Your task to perform on an android device: turn off notifications in google photos Image 0: 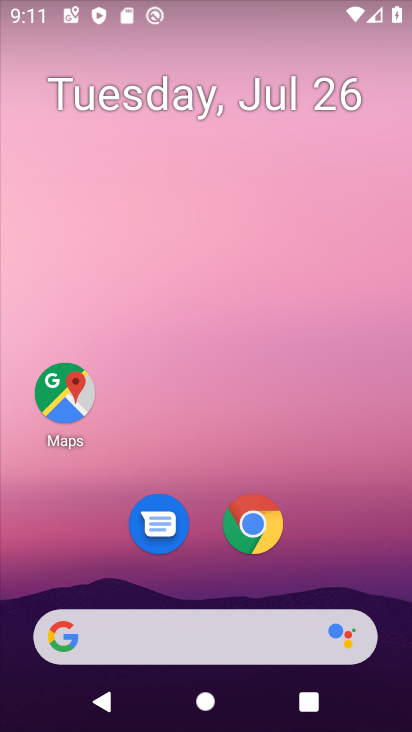
Step 0: drag from (189, 644) to (351, 136)
Your task to perform on an android device: turn off notifications in google photos Image 1: 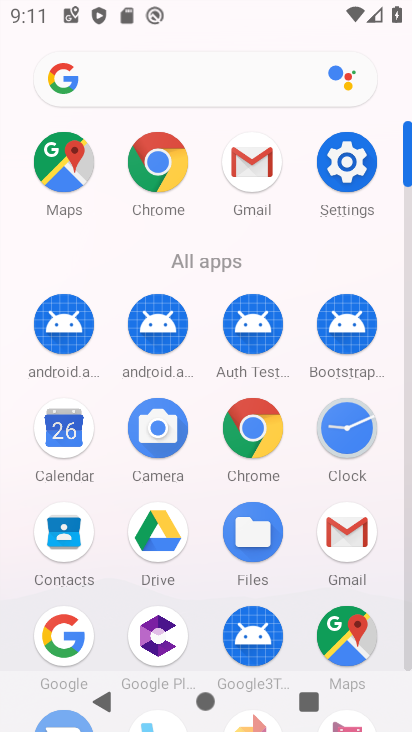
Step 1: drag from (200, 599) to (327, 197)
Your task to perform on an android device: turn off notifications in google photos Image 2: 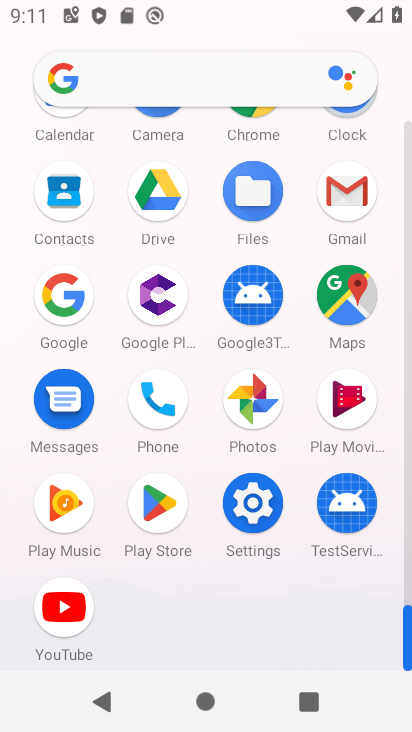
Step 2: click (268, 417)
Your task to perform on an android device: turn off notifications in google photos Image 3: 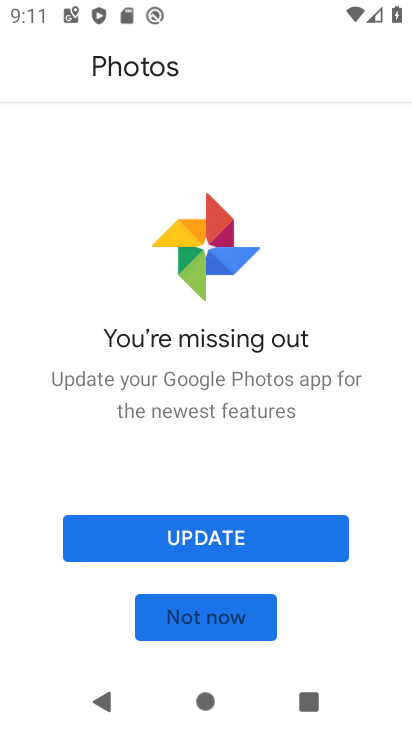
Step 3: click (177, 614)
Your task to perform on an android device: turn off notifications in google photos Image 4: 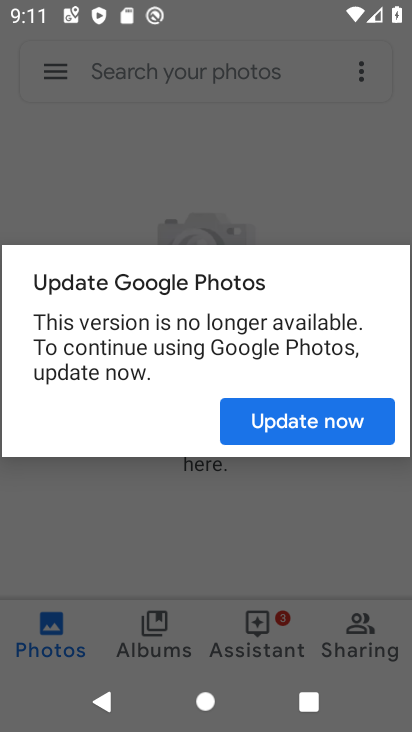
Step 4: click (324, 405)
Your task to perform on an android device: turn off notifications in google photos Image 5: 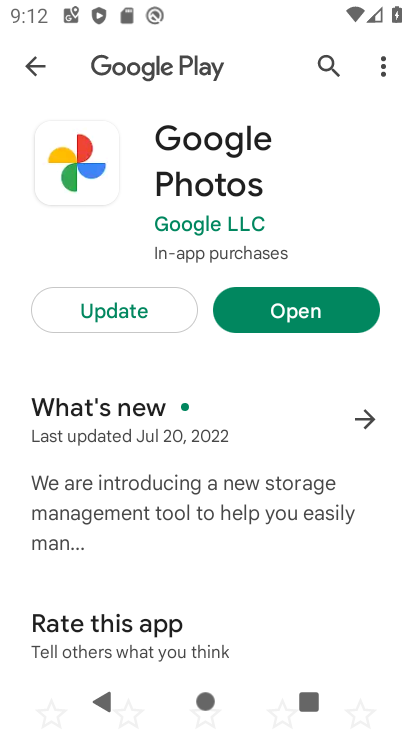
Step 5: click (90, 318)
Your task to perform on an android device: turn off notifications in google photos Image 6: 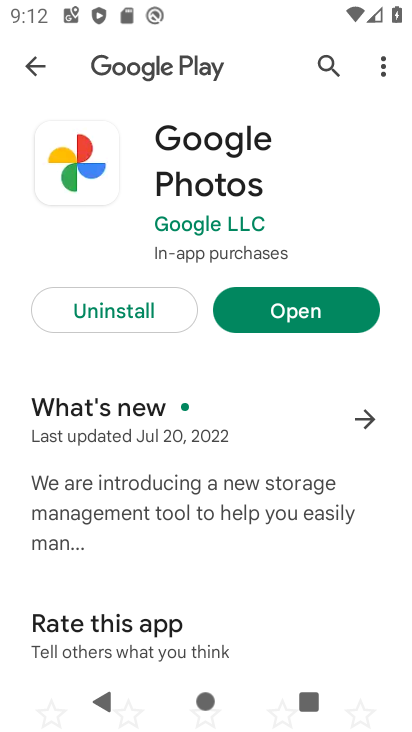
Step 6: click (335, 316)
Your task to perform on an android device: turn off notifications in google photos Image 7: 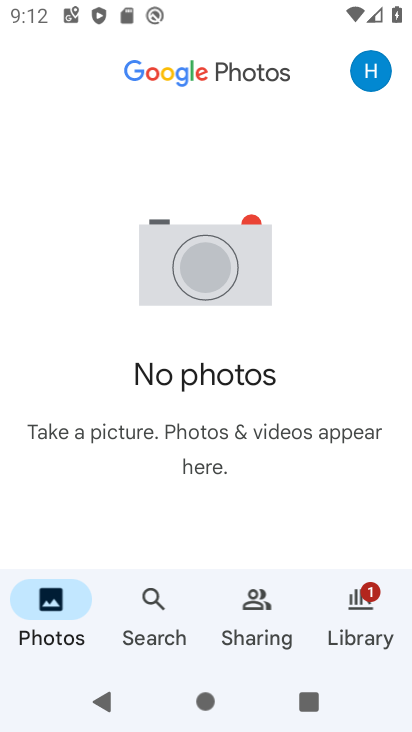
Step 7: click (365, 76)
Your task to perform on an android device: turn off notifications in google photos Image 8: 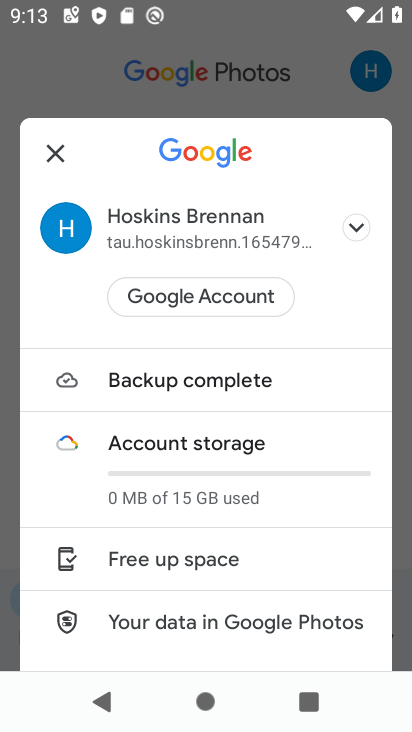
Step 8: drag from (212, 581) to (360, 129)
Your task to perform on an android device: turn off notifications in google photos Image 9: 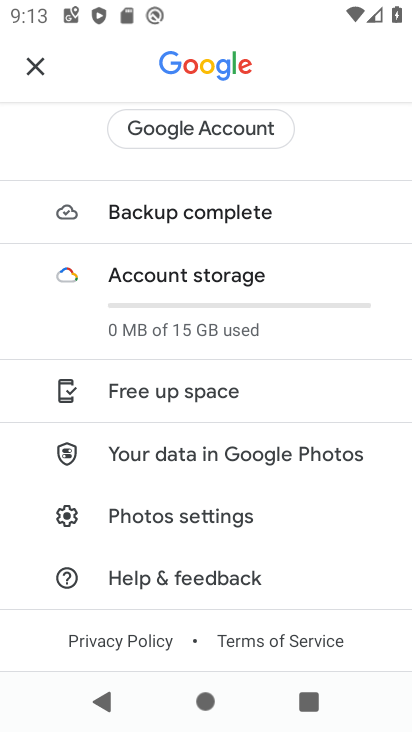
Step 9: click (207, 513)
Your task to perform on an android device: turn off notifications in google photos Image 10: 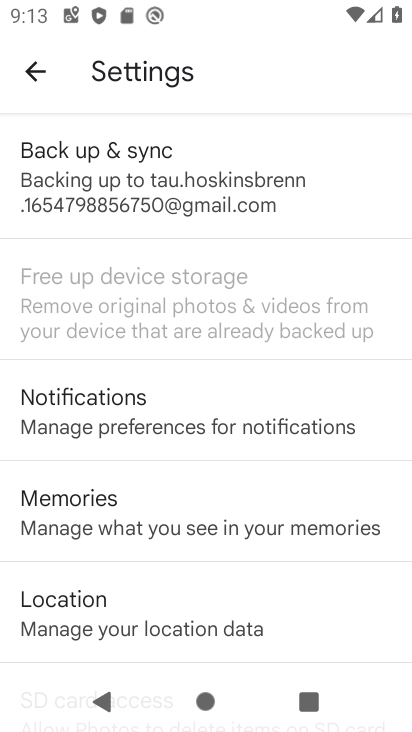
Step 10: click (153, 418)
Your task to perform on an android device: turn off notifications in google photos Image 11: 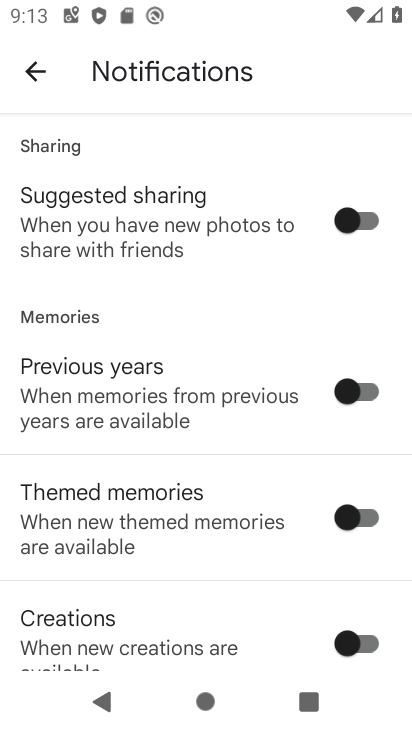
Step 11: drag from (223, 621) to (327, 126)
Your task to perform on an android device: turn off notifications in google photos Image 12: 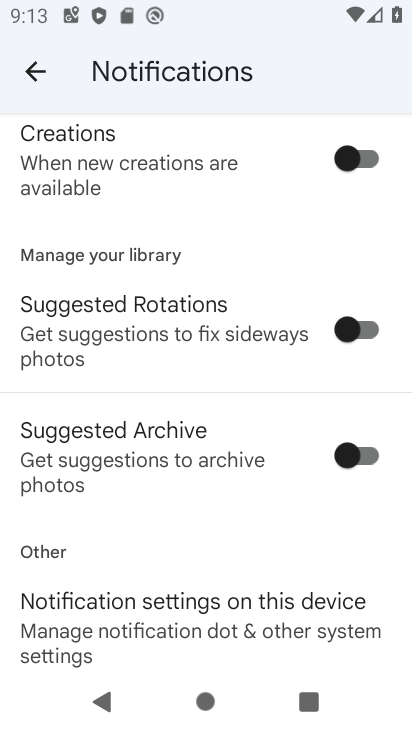
Step 12: drag from (207, 542) to (283, 153)
Your task to perform on an android device: turn off notifications in google photos Image 13: 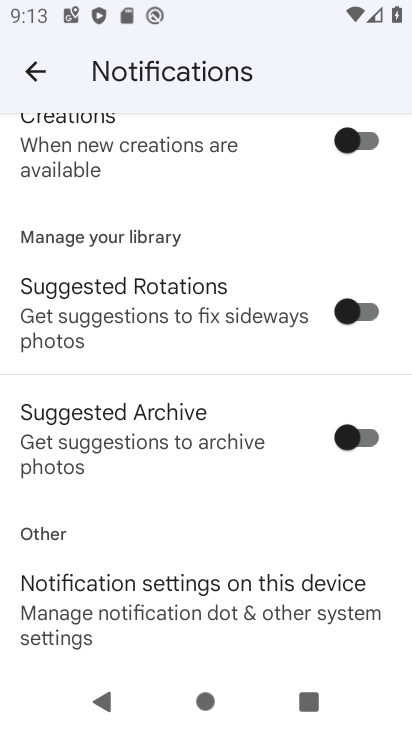
Step 13: click (171, 611)
Your task to perform on an android device: turn off notifications in google photos Image 14: 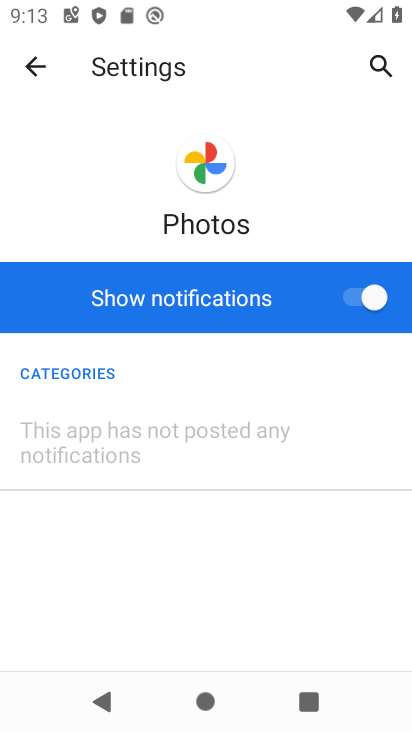
Step 14: click (354, 296)
Your task to perform on an android device: turn off notifications in google photos Image 15: 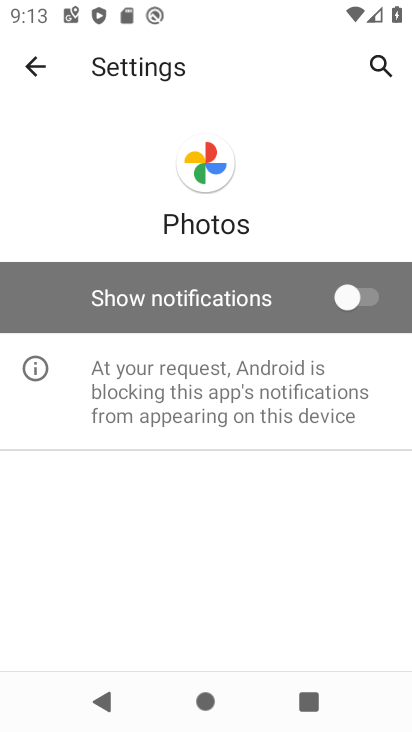
Step 15: task complete